Your task to perform on an android device: Go to Android settings Image 0: 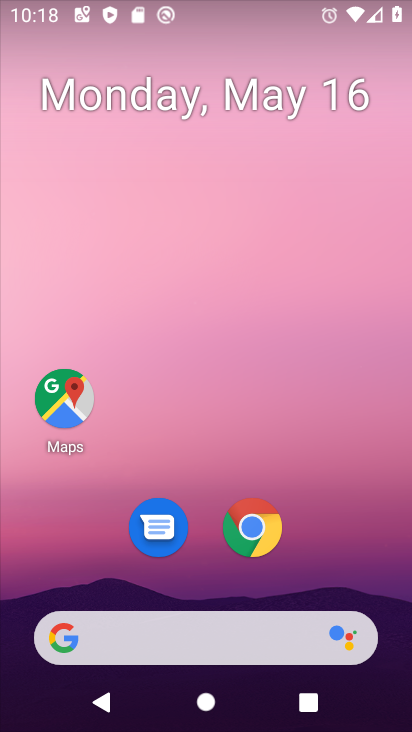
Step 0: drag from (322, 578) to (328, 0)
Your task to perform on an android device: Go to Android settings Image 1: 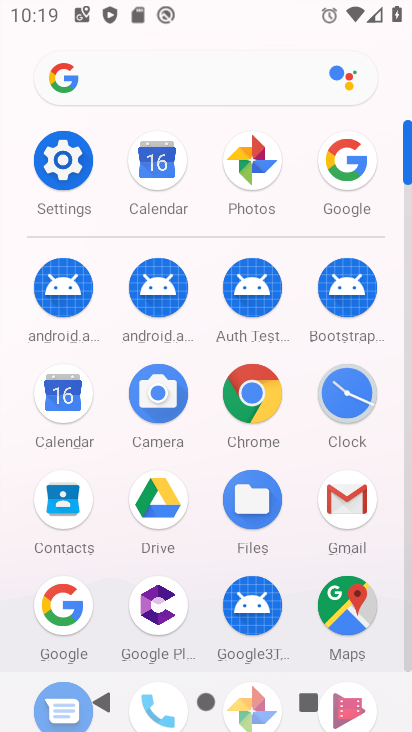
Step 1: click (71, 165)
Your task to perform on an android device: Go to Android settings Image 2: 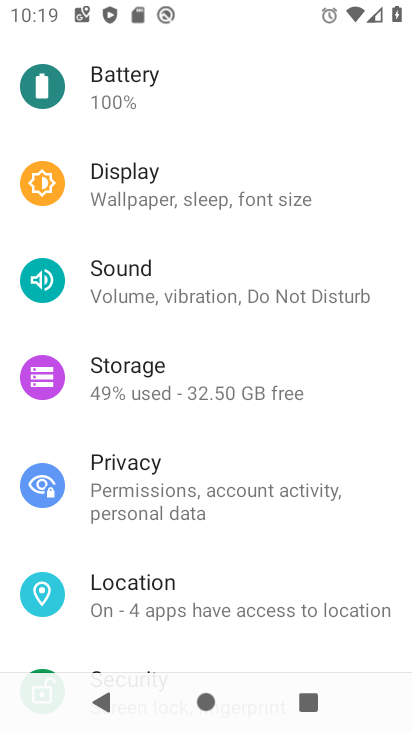
Step 2: task complete